Your task to perform on an android device: What's the weather today? Image 0: 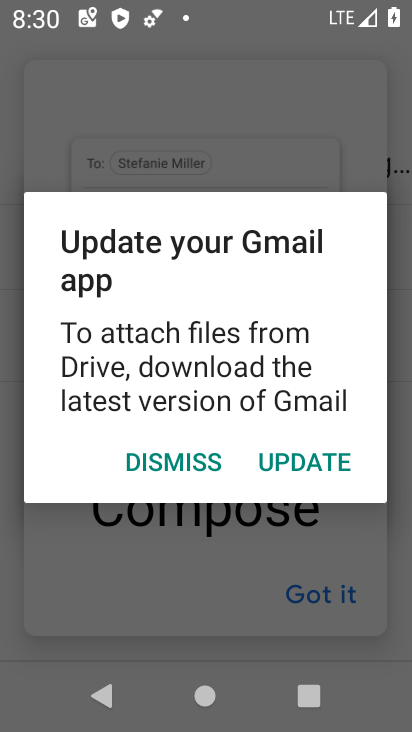
Step 0: press home button
Your task to perform on an android device: What's the weather today? Image 1: 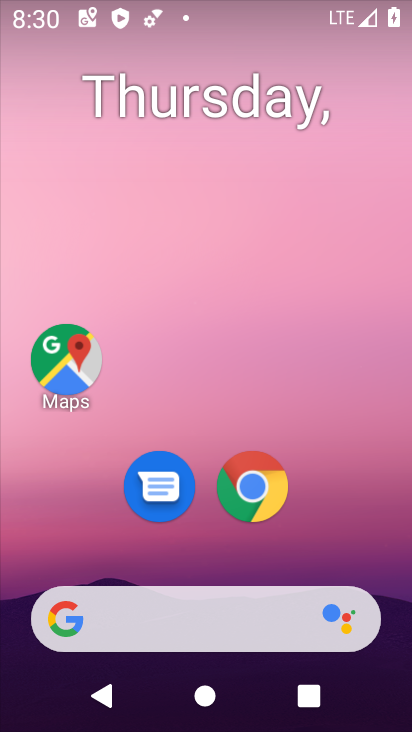
Step 1: drag from (165, 582) to (46, 28)
Your task to perform on an android device: What's the weather today? Image 2: 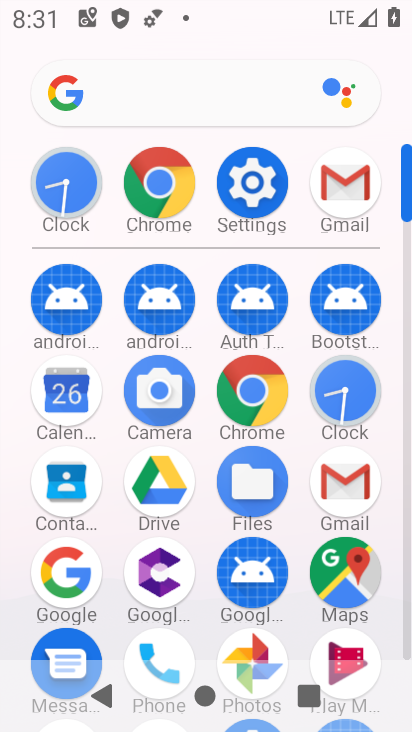
Step 2: click (81, 562)
Your task to perform on an android device: What's the weather today? Image 3: 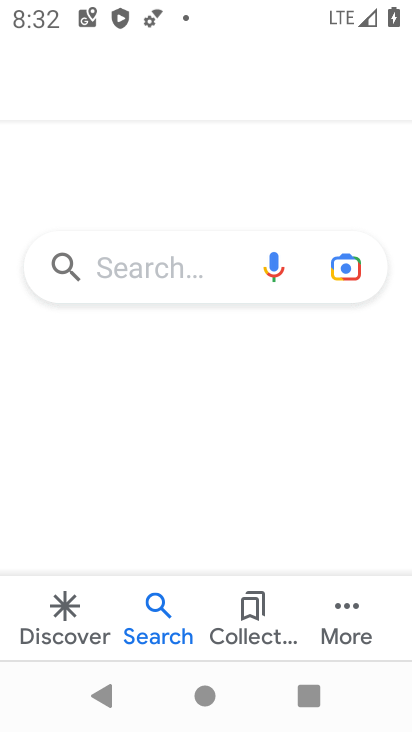
Step 3: click (177, 287)
Your task to perform on an android device: What's the weather today? Image 4: 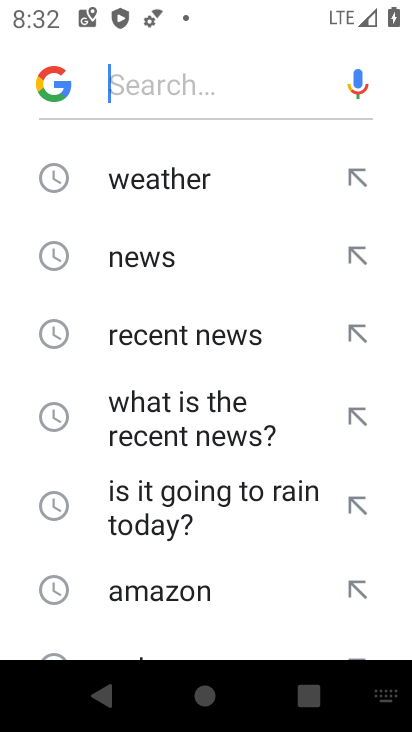
Step 4: click (197, 167)
Your task to perform on an android device: What's the weather today? Image 5: 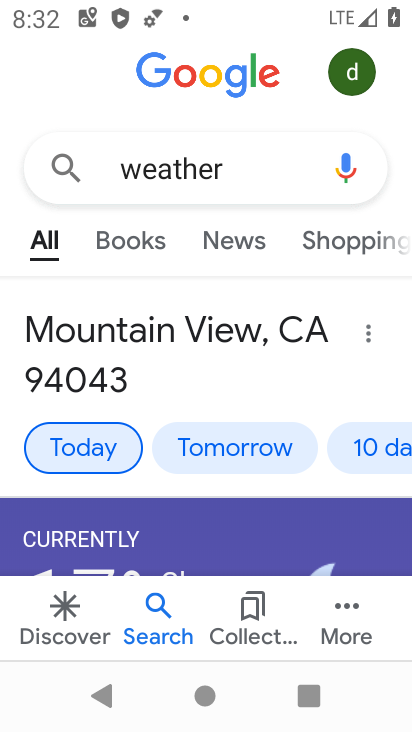
Step 5: task complete